Your task to perform on an android device: Turn off the flashlight Image 0: 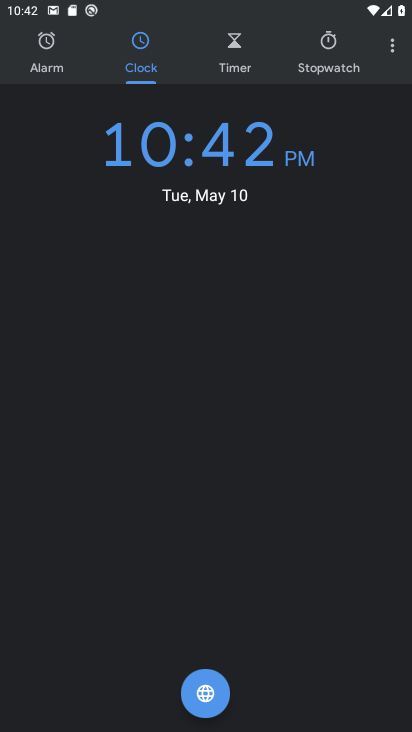
Step 0: press home button
Your task to perform on an android device: Turn off the flashlight Image 1: 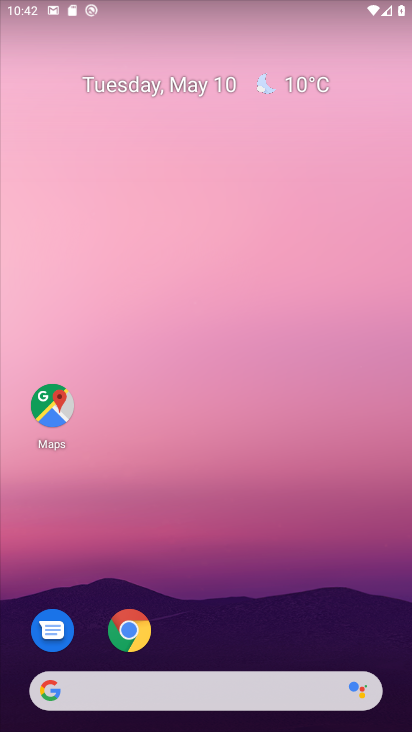
Step 1: drag from (282, 622) to (281, 119)
Your task to perform on an android device: Turn off the flashlight Image 2: 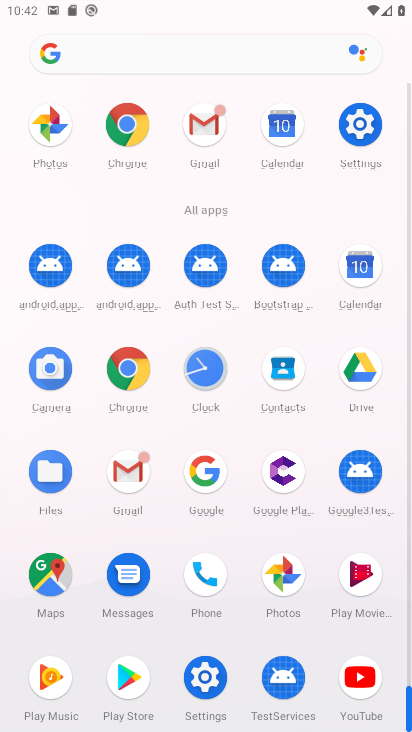
Step 2: click (357, 119)
Your task to perform on an android device: Turn off the flashlight Image 3: 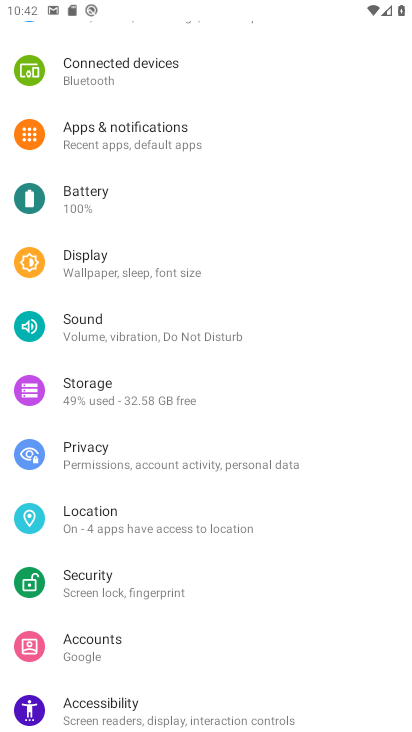
Step 3: click (143, 129)
Your task to perform on an android device: Turn off the flashlight Image 4: 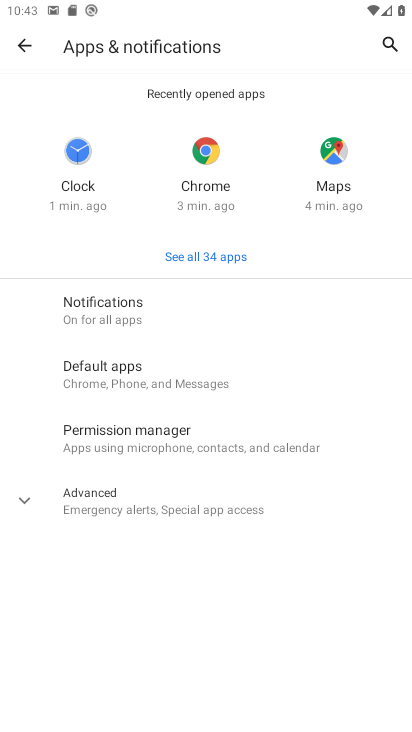
Step 4: task complete